Your task to perform on an android device: uninstall "Messenger Lite" Image 0: 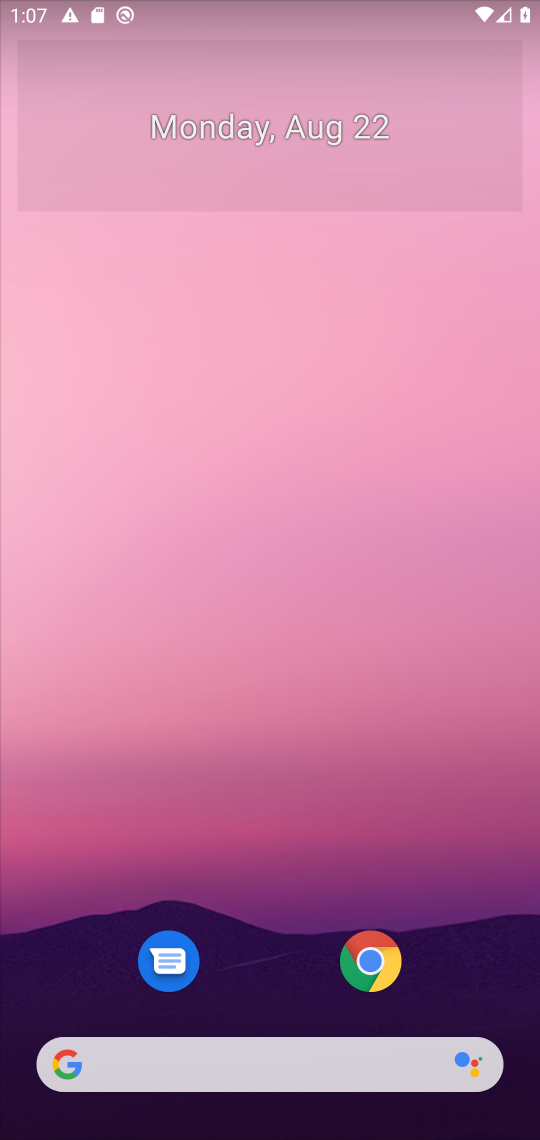
Step 0: press home button
Your task to perform on an android device: uninstall "Messenger Lite" Image 1: 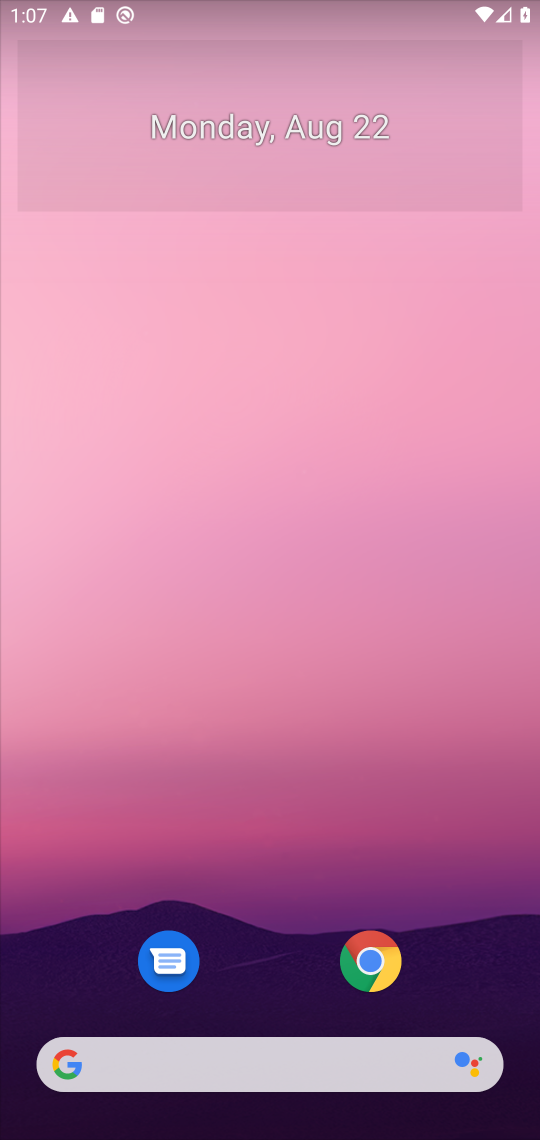
Step 1: drag from (474, 959) to (505, 182)
Your task to perform on an android device: uninstall "Messenger Lite" Image 2: 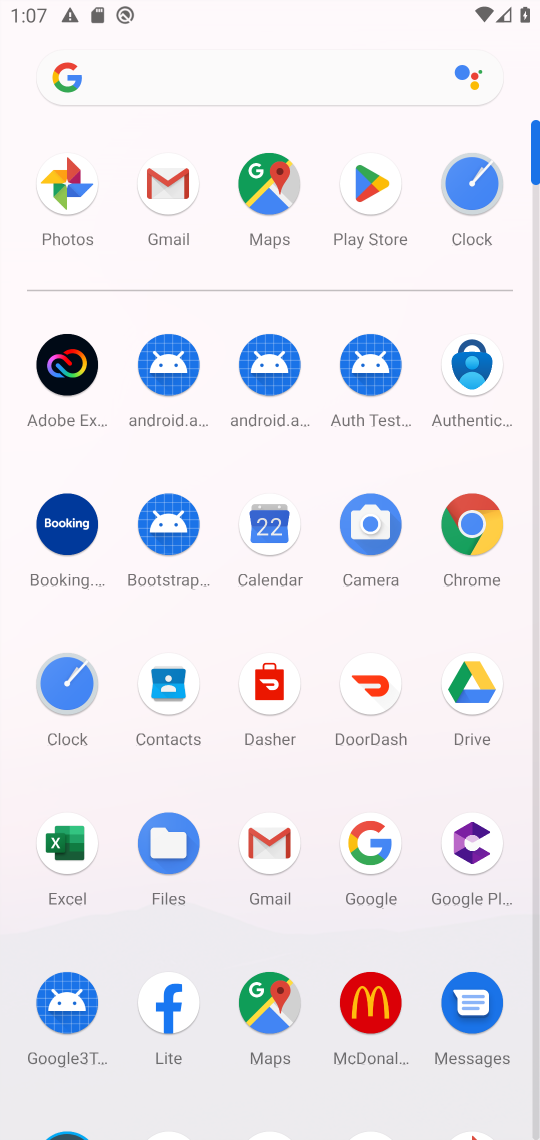
Step 2: click (376, 190)
Your task to perform on an android device: uninstall "Messenger Lite" Image 3: 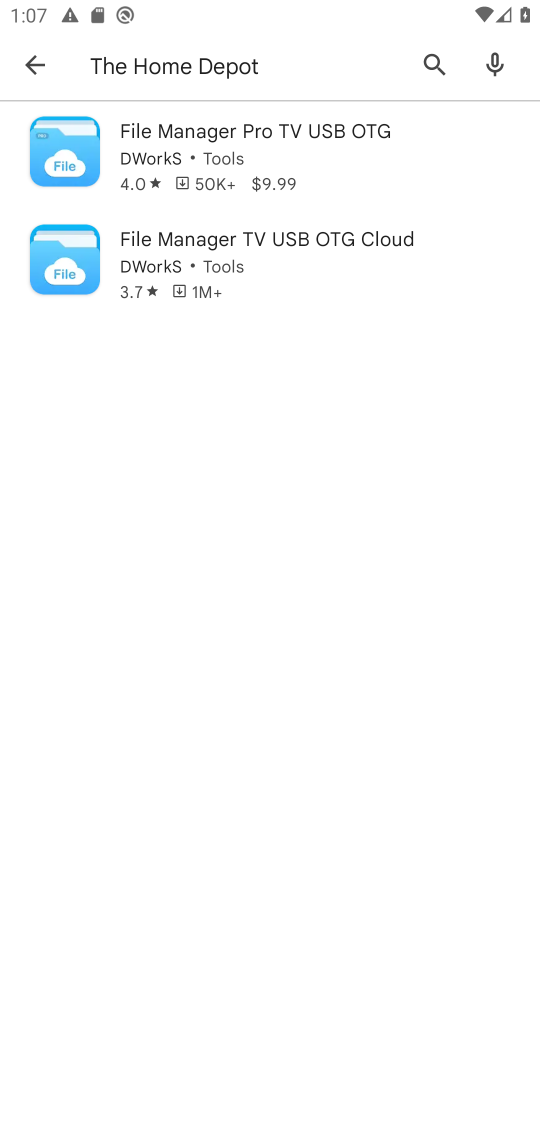
Step 3: press back button
Your task to perform on an android device: uninstall "Messenger Lite" Image 4: 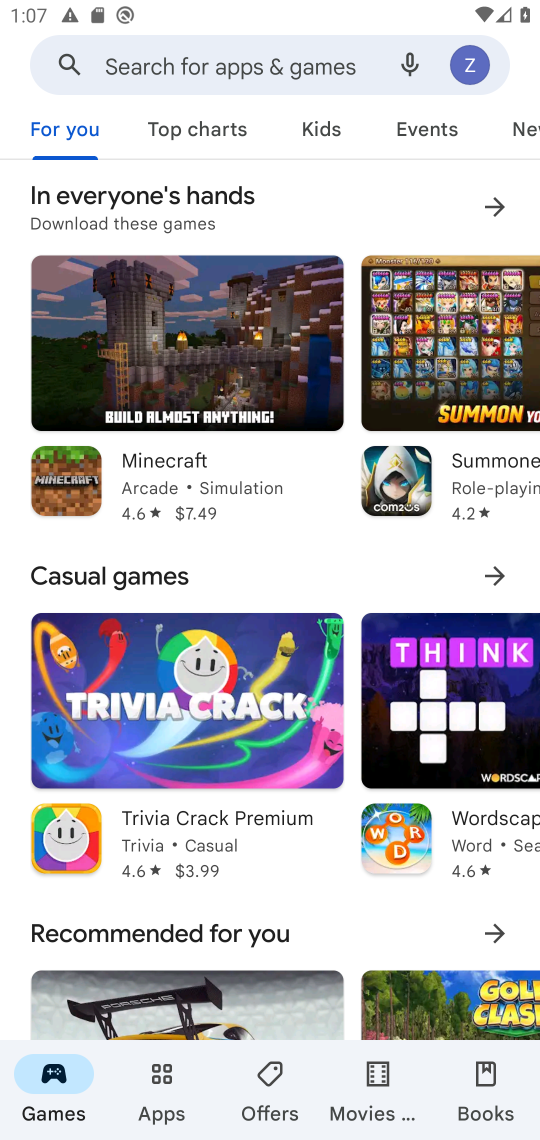
Step 4: click (257, 73)
Your task to perform on an android device: uninstall "Messenger Lite" Image 5: 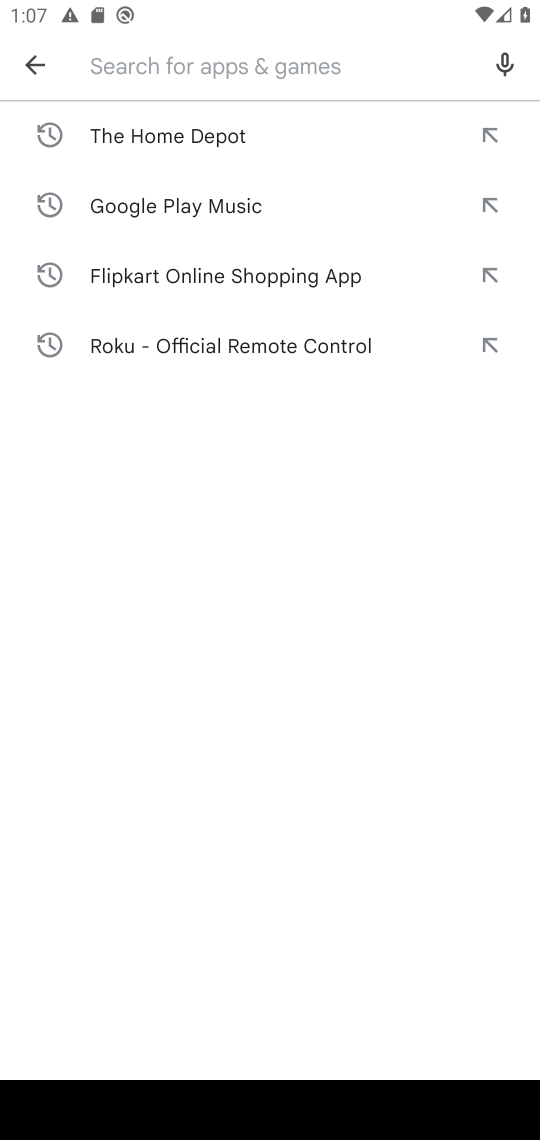
Step 5: press enter
Your task to perform on an android device: uninstall "Messenger Lite" Image 6: 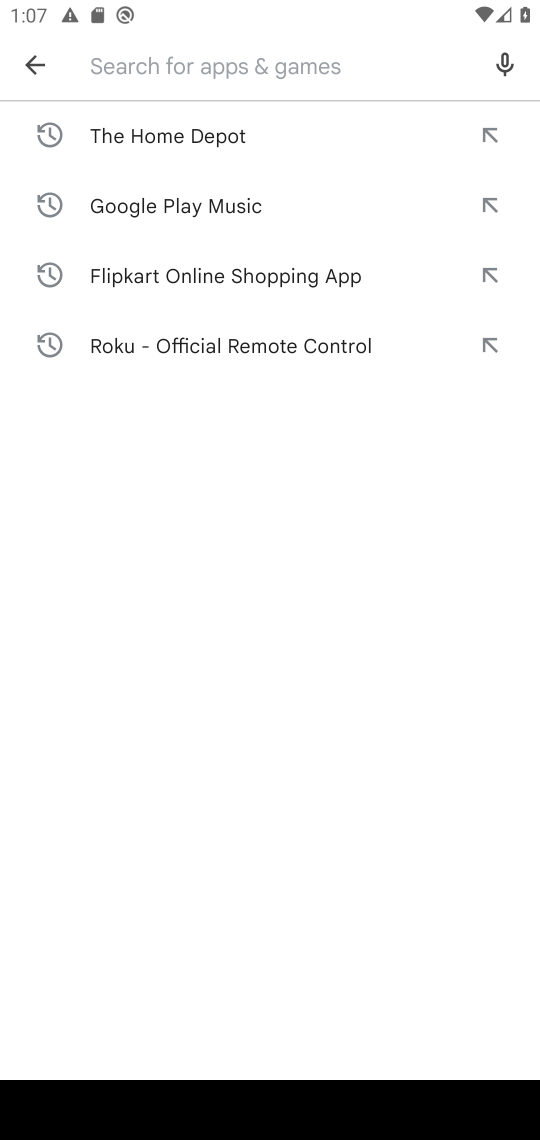
Step 6: type "Messenger Lite"
Your task to perform on an android device: uninstall "Messenger Lite" Image 7: 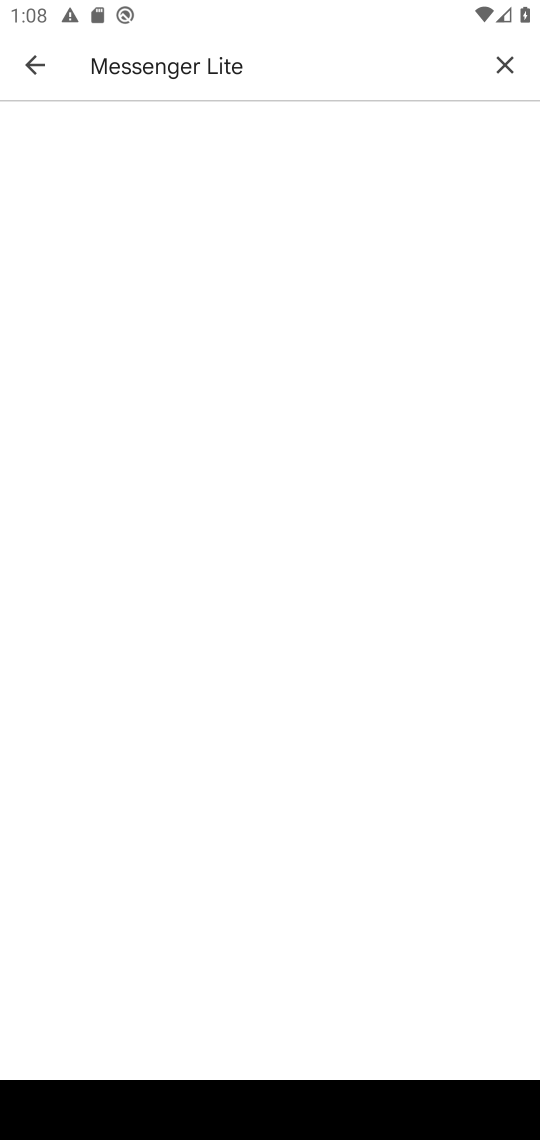
Step 7: task complete